Your task to perform on an android device: Go to privacy settings Image 0: 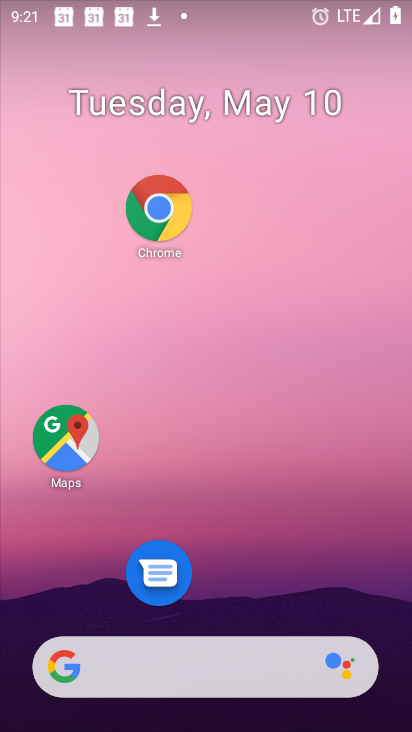
Step 0: drag from (290, 700) to (320, 203)
Your task to perform on an android device: Go to privacy settings Image 1: 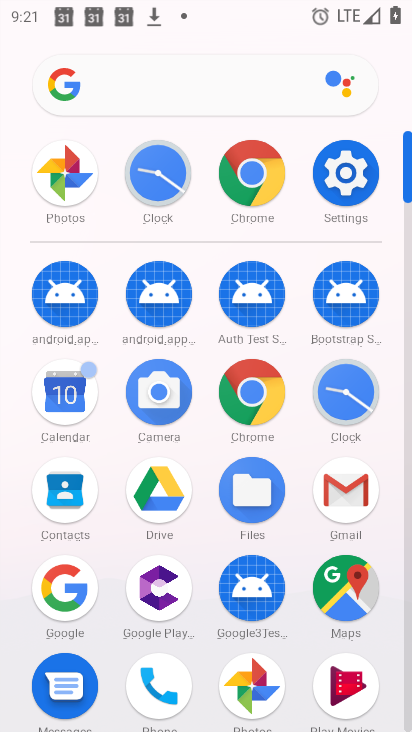
Step 1: click (330, 183)
Your task to perform on an android device: Go to privacy settings Image 2: 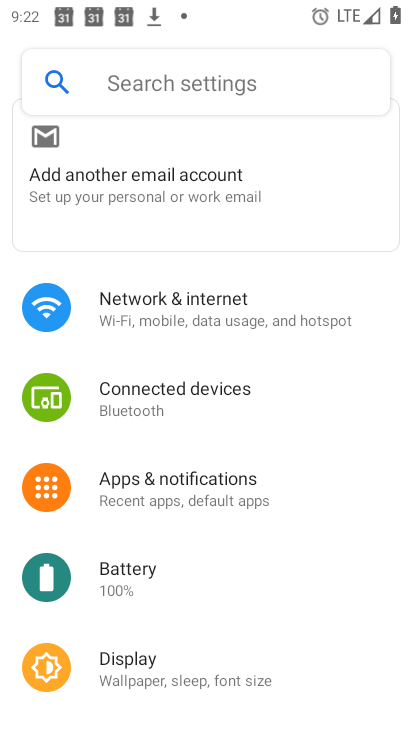
Step 2: drag from (167, 640) to (209, 359)
Your task to perform on an android device: Go to privacy settings Image 3: 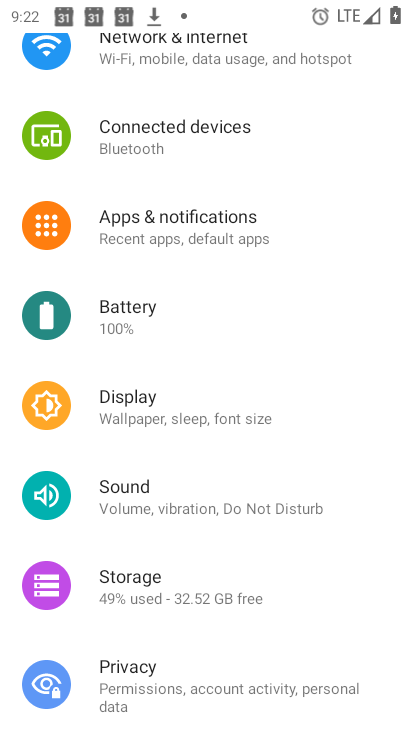
Step 3: click (152, 666)
Your task to perform on an android device: Go to privacy settings Image 4: 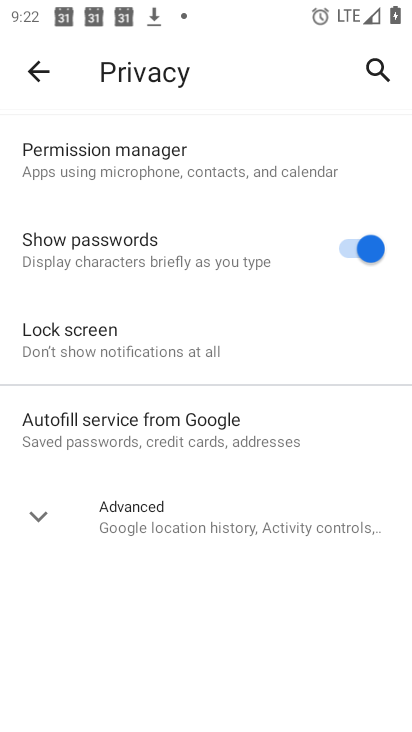
Step 4: task complete